Your task to perform on an android device: turn on the 12-hour format for clock Image 0: 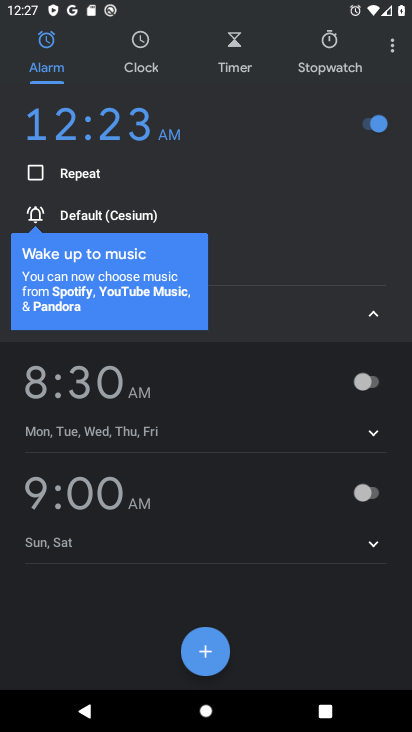
Step 0: press home button
Your task to perform on an android device: turn on the 12-hour format for clock Image 1: 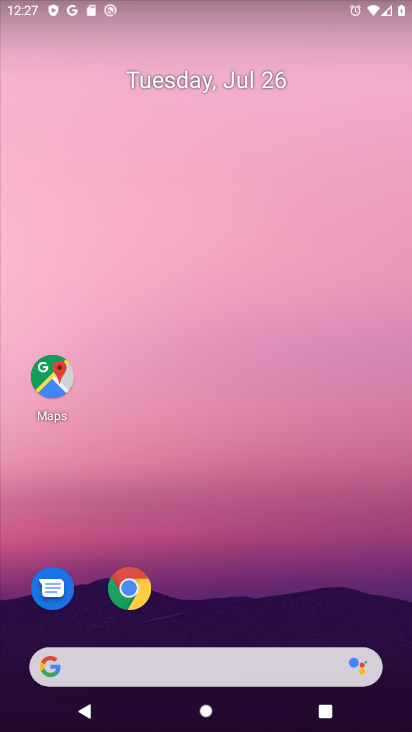
Step 1: drag from (219, 634) to (405, 321)
Your task to perform on an android device: turn on the 12-hour format for clock Image 2: 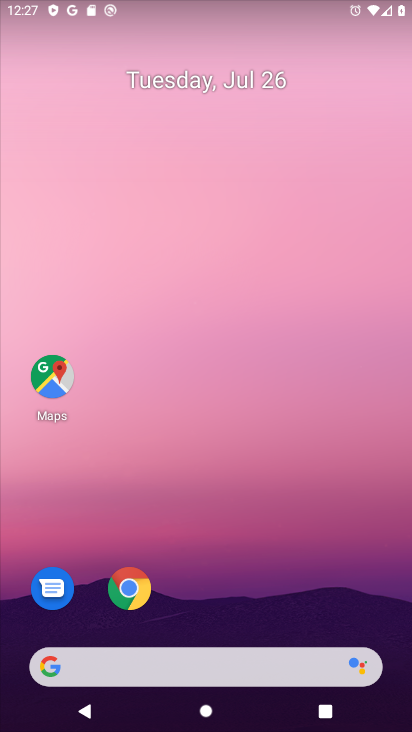
Step 2: drag from (211, 621) to (167, 304)
Your task to perform on an android device: turn on the 12-hour format for clock Image 3: 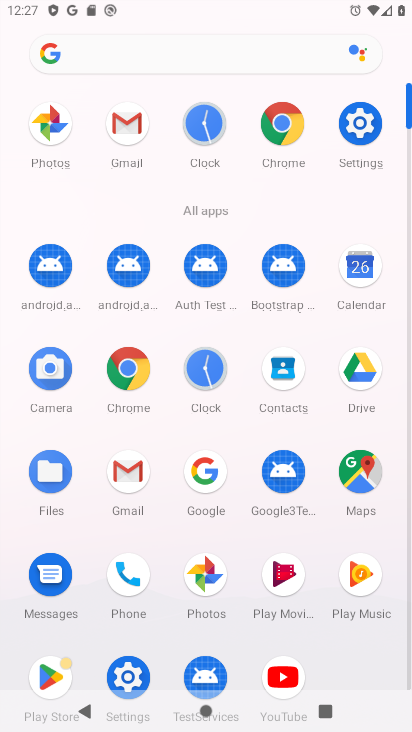
Step 3: click (208, 137)
Your task to perform on an android device: turn on the 12-hour format for clock Image 4: 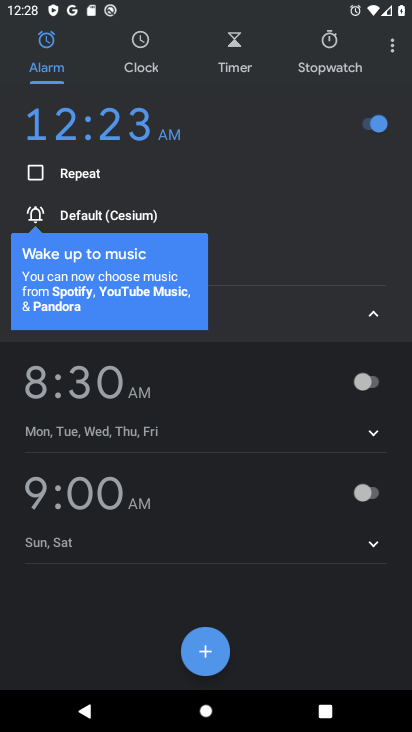
Step 4: click (391, 49)
Your task to perform on an android device: turn on the 12-hour format for clock Image 5: 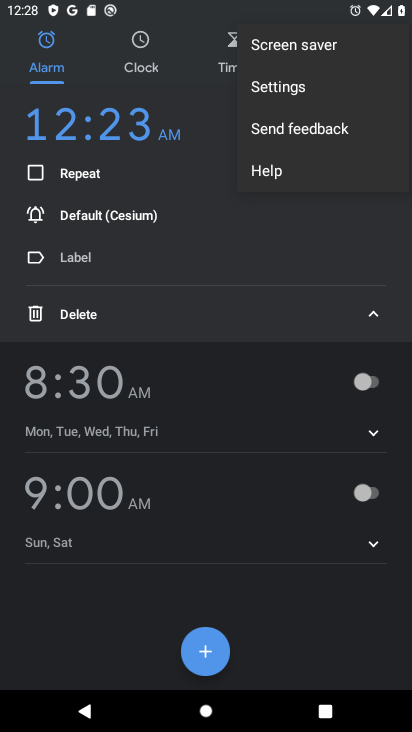
Step 5: drag from (391, 49) to (303, 84)
Your task to perform on an android device: turn on the 12-hour format for clock Image 6: 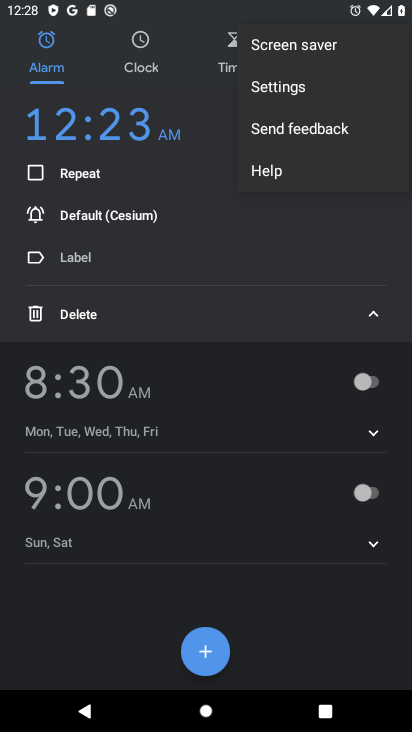
Step 6: click (284, 87)
Your task to perform on an android device: turn on the 12-hour format for clock Image 7: 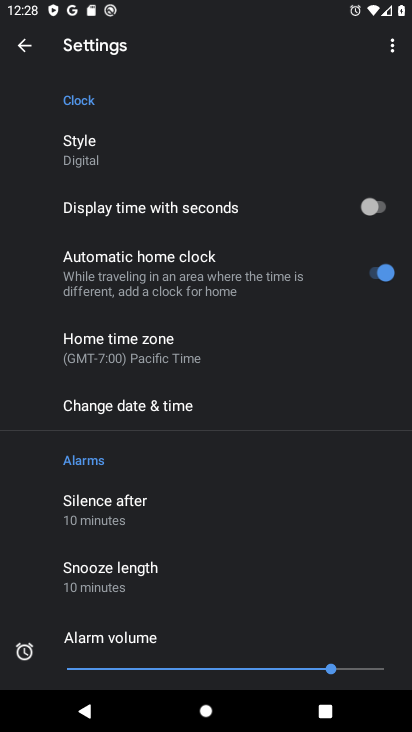
Step 7: click (152, 402)
Your task to perform on an android device: turn on the 12-hour format for clock Image 8: 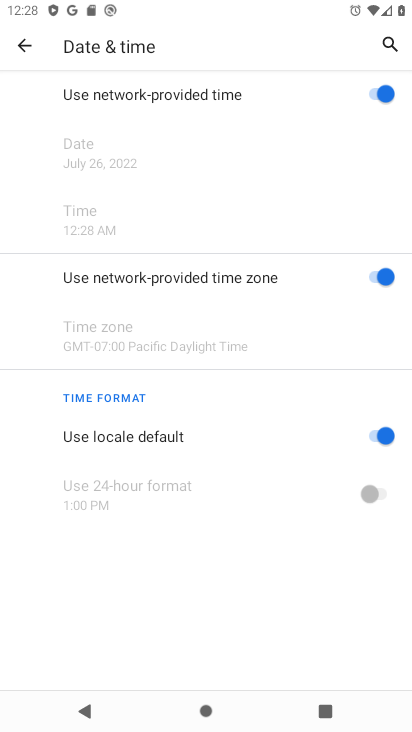
Step 8: task complete